Your task to perform on an android device: Go to internet settings Image 0: 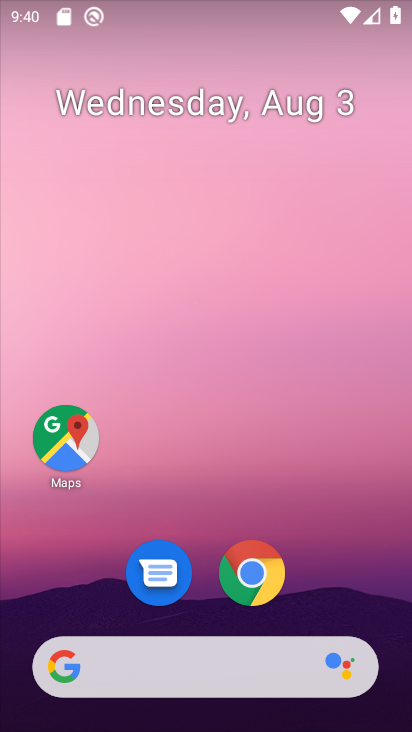
Step 0: drag from (223, 647) to (204, 60)
Your task to perform on an android device: Go to internet settings Image 1: 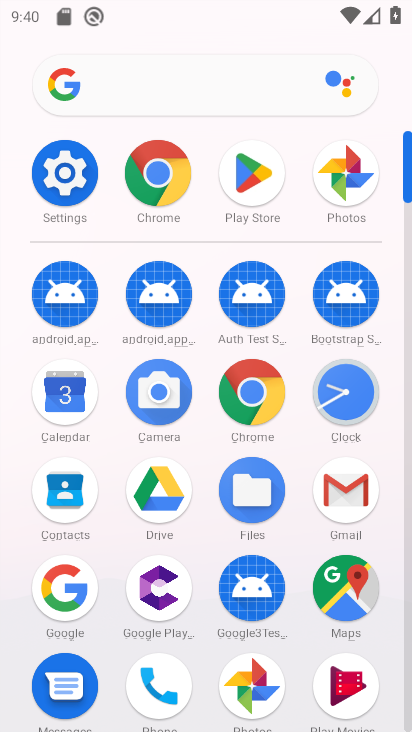
Step 1: click (94, 182)
Your task to perform on an android device: Go to internet settings Image 2: 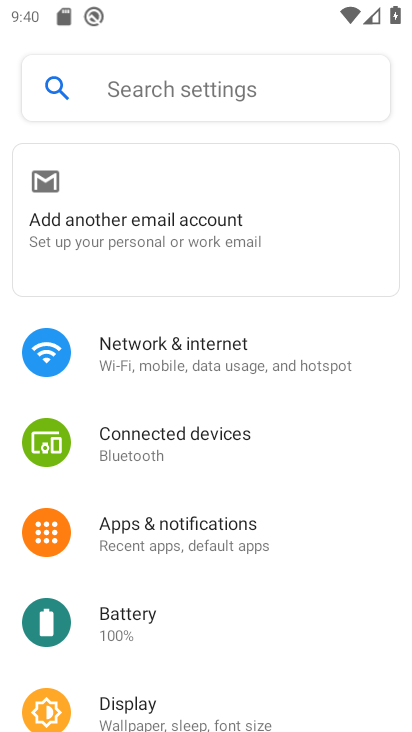
Step 2: click (172, 353)
Your task to perform on an android device: Go to internet settings Image 3: 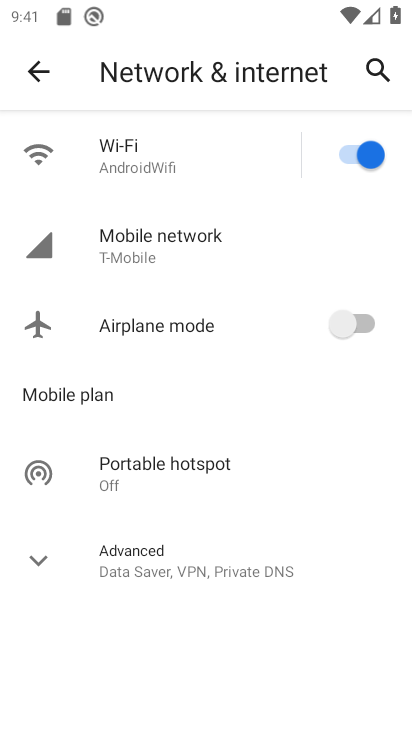
Step 3: task complete